Your task to perform on an android device: Open settings Image 0: 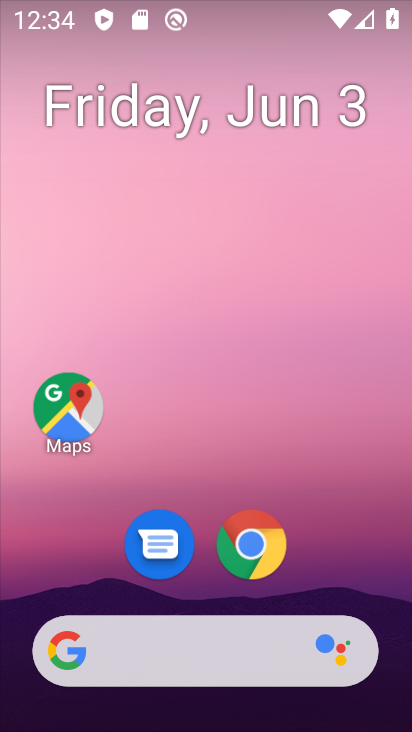
Step 0: drag from (337, 572) to (327, 3)
Your task to perform on an android device: Open settings Image 1: 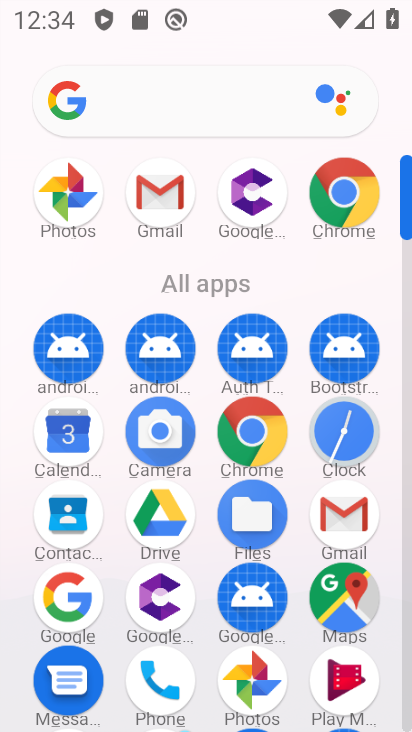
Step 1: drag from (199, 512) to (193, 122)
Your task to perform on an android device: Open settings Image 2: 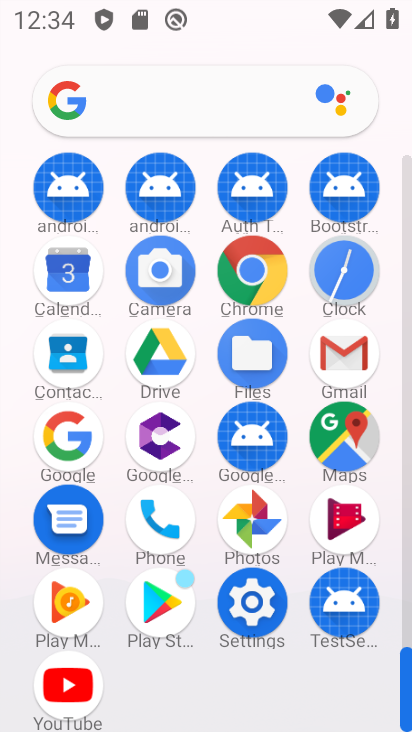
Step 2: click (254, 603)
Your task to perform on an android device: Open settings Image 3: 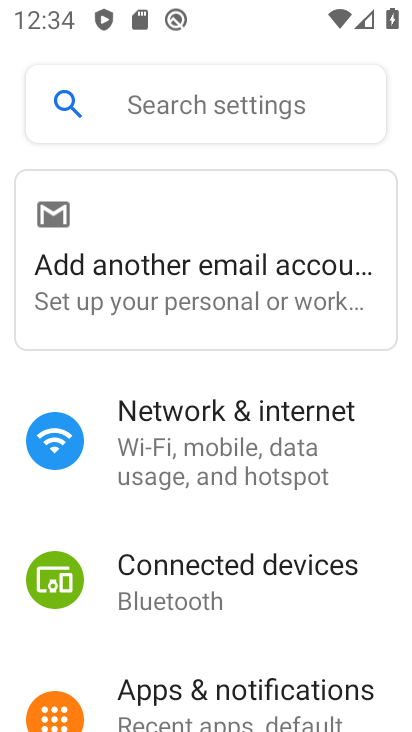
Step 3: task complete